Your task to perform on an android device: turn off javascript in the chrome app Image 0: 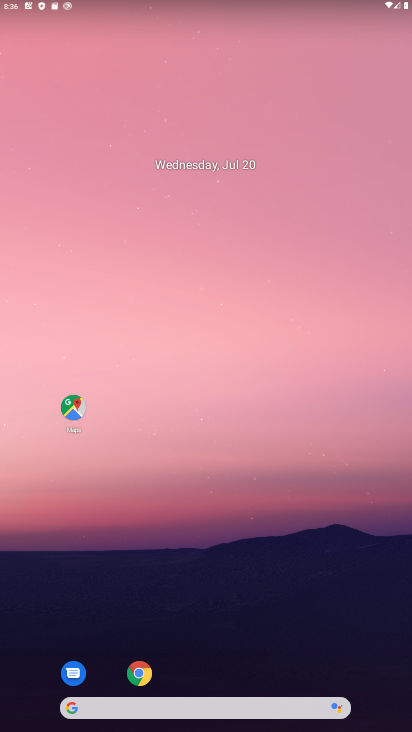
Step 0: drag from (173, 655) to (272, 26)
Your task to perform on an android device: turn off javascript in the chrome app Image 1: 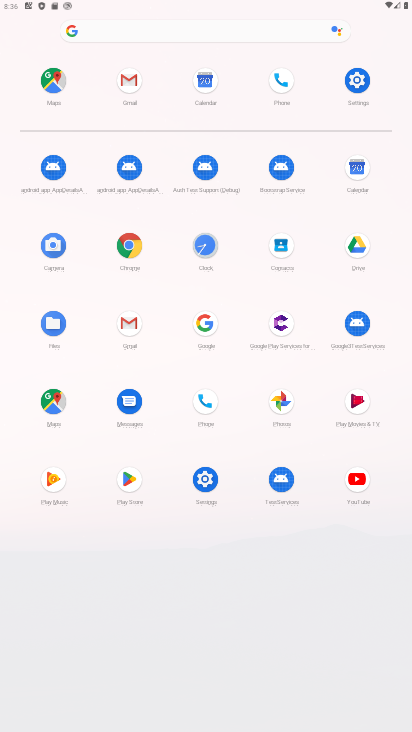
Step 1: drag from (257, 563) to (280, 229)
Your task to perform on an android device: turn off javascript in the chrome app Image 2: 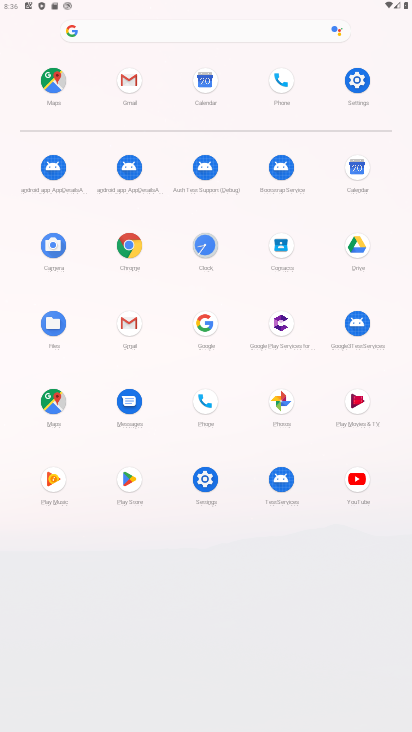
Step 2: click (124, 240)
Your task to perform on an android device: turn off javascript in the chrome app Image 3: 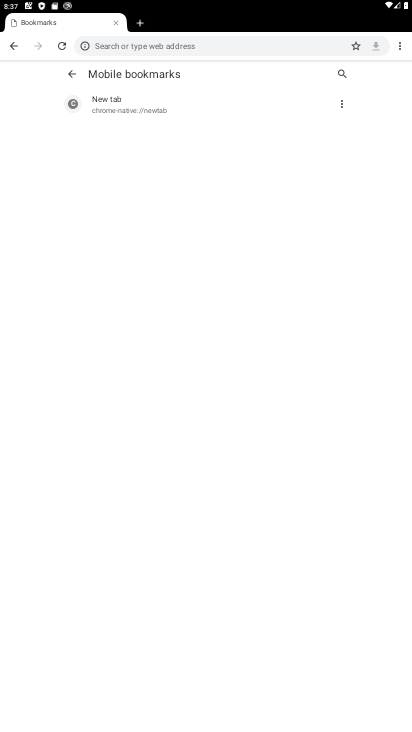
Step 3: drag from (238, 366) to (250, 156)
Your task to perform on an android device: turn off javascript in the chrome app Image 4: 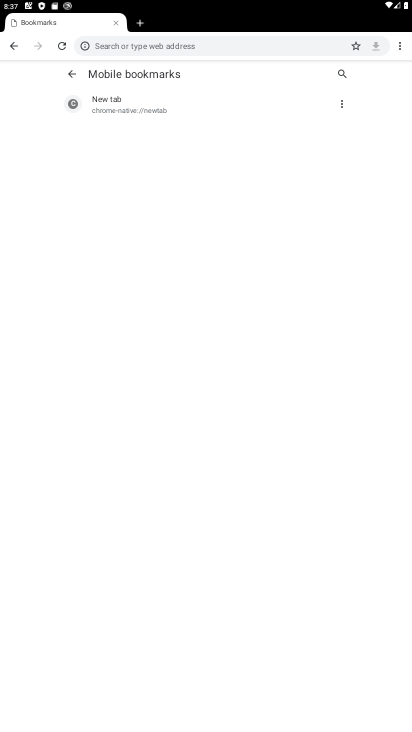
Step 4: drag from (200, 507) to (241, 181)
Your task to perform on an android device: turn off javascript in the chrome app Image 5: 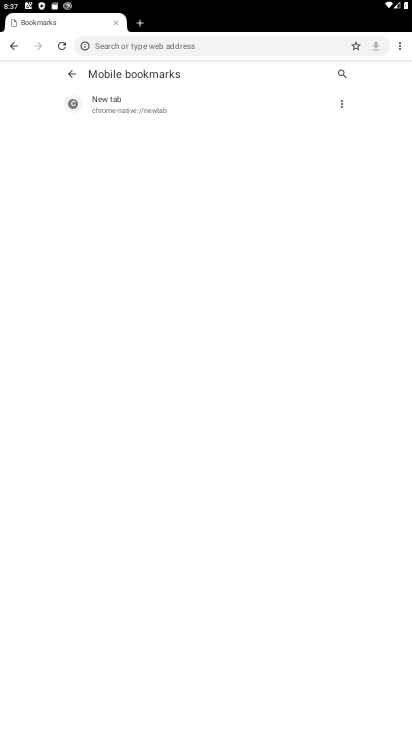
Step 5: drag from (401, 39) to (318, 206)
Your task to perform on an android device: turn off javascript in the chrome app Image 6: 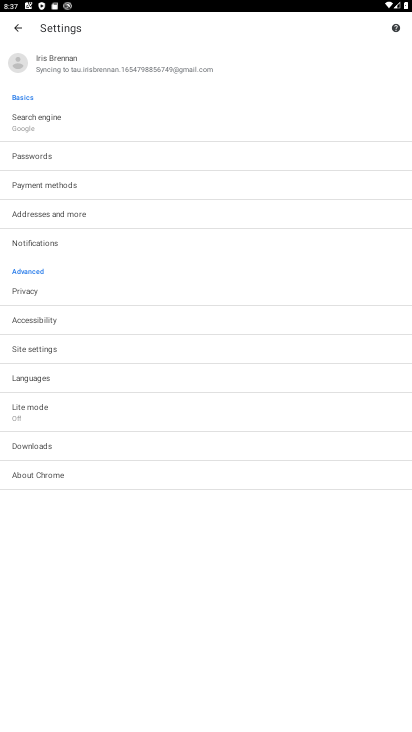
Step 6: drag from (199, 470) to (205, 136)
Your task to perform on an android device: turn off javascript in the chrome app Image 7: 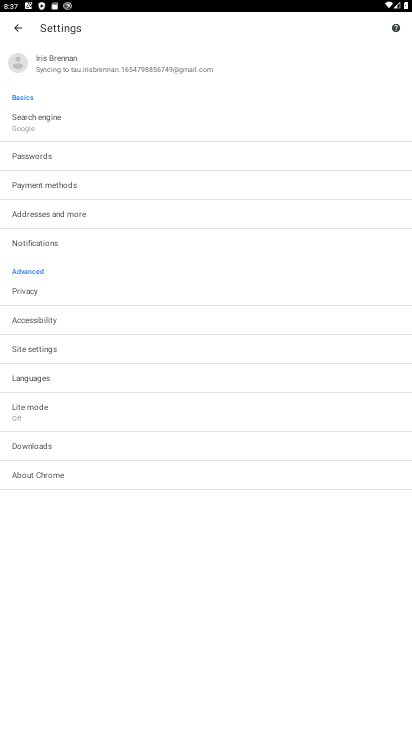
Step 7: click (70, 337)
Your task to perform on an android device: turn off javascript in the chrome app Image 8: 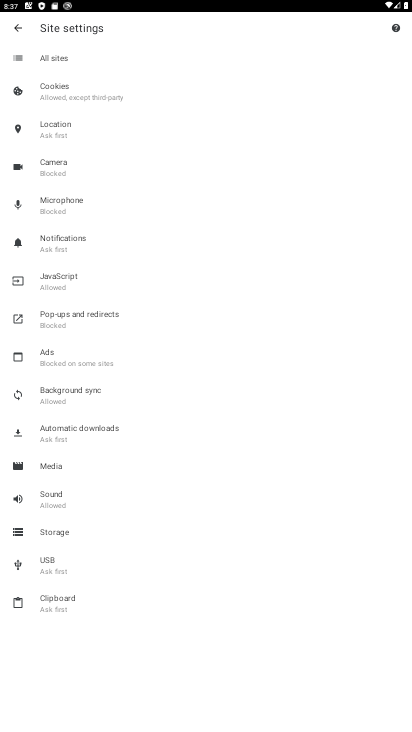
Step 8: click (94, 278)
Your task to perform on an android device: turn off javascript in the chrome app Image 9: 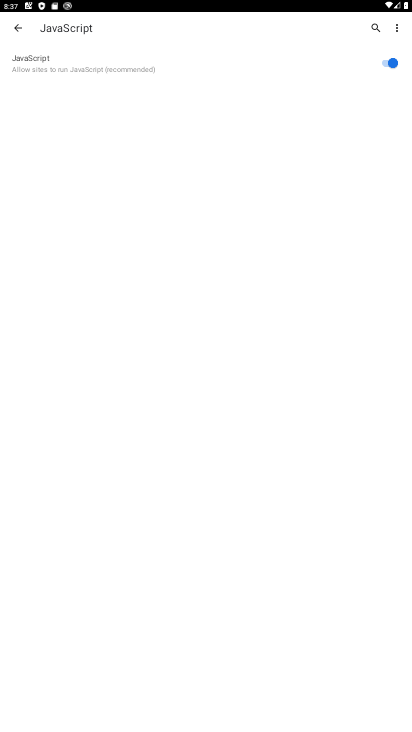
Step 9: click (369, 55)
Your task to perform on an android device: turn off javascript in the chrome app Image 10: 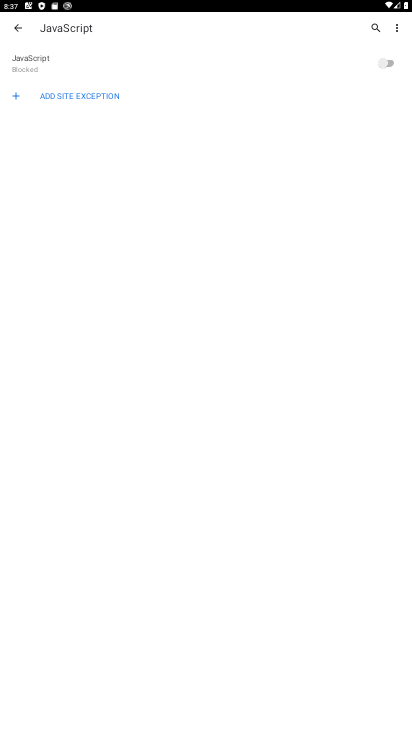
Step 10: task complete